Your task to perform on an android device: visit the assistant section in the google photos Image 0: 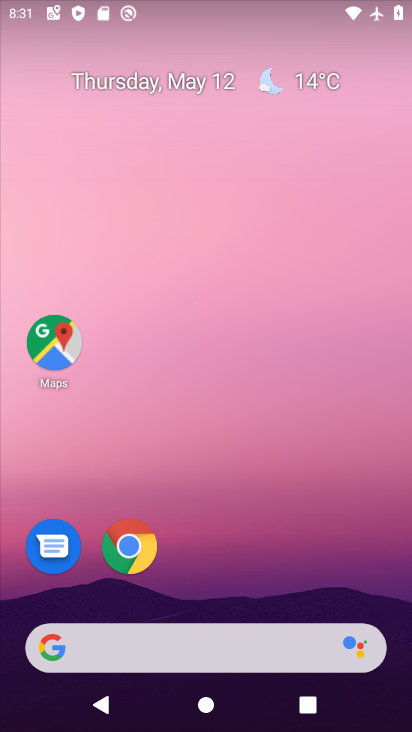
Step 0: drag from (209, 660) to (300, 185)
Your task to perform on an android device: visit the assistant section in the google photos Image 1: 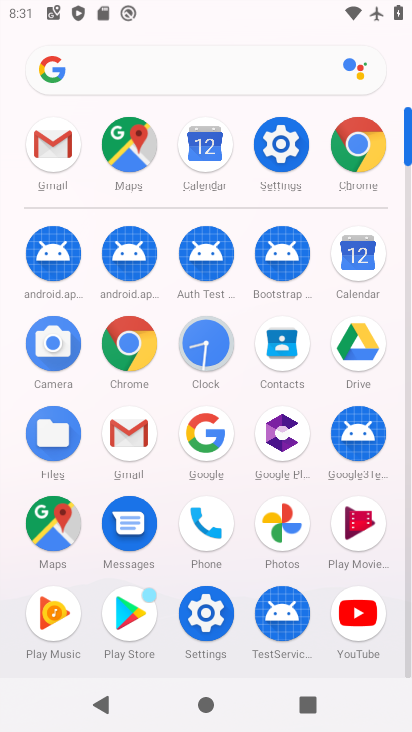
Step 1: click (286, 529)
Your task to perform on an android device: visit the assistant section in the google photos Image 2: 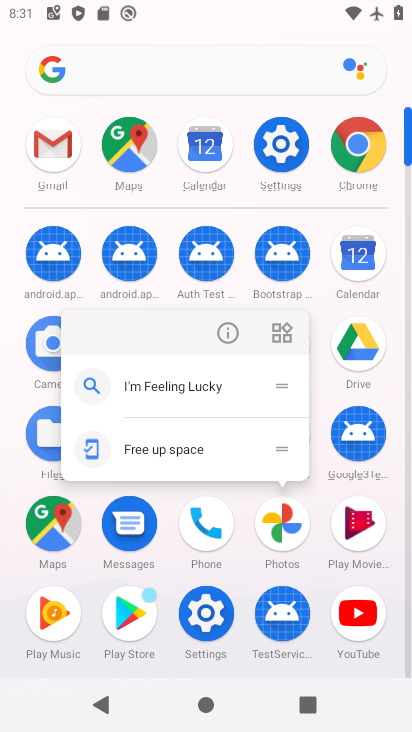
Step 2: click (277, 520)
Your task to perform on an android device: visit the assistant section in the google photos Image 3: 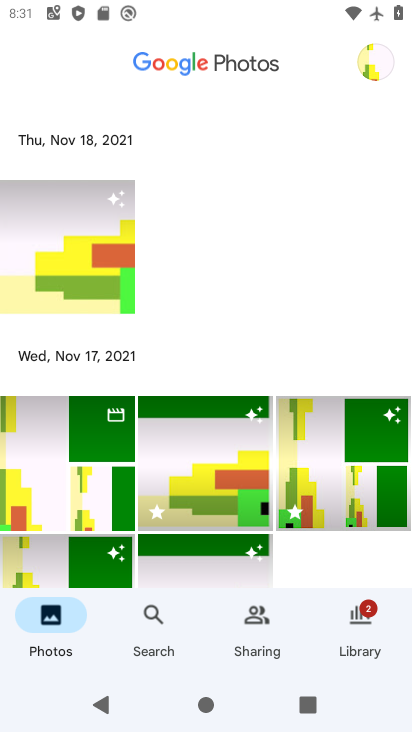
Step 3: click (338, 646)
Your task to perform on an android device: visit the assistant section in the google photos Image 4: 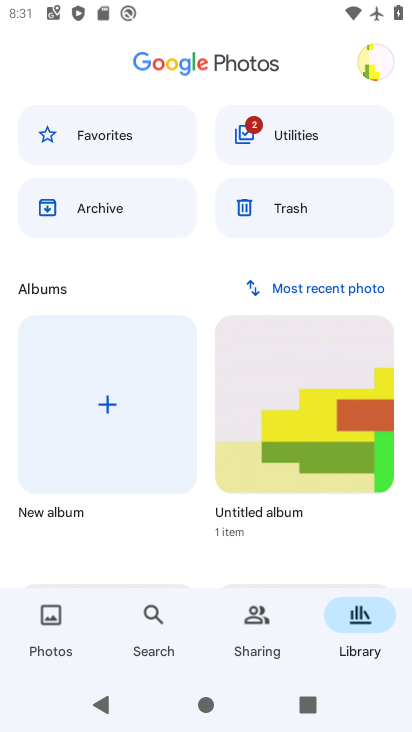
Step 4: task complete